Your task to perform on an android device: empty trash in the gmail app Image 0: 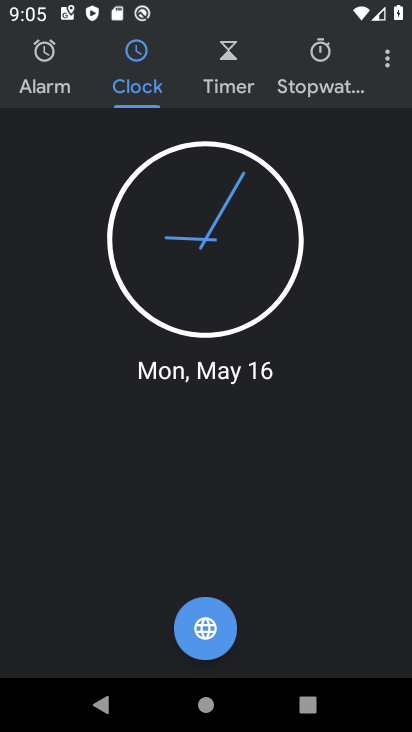
Step 0: press home button
Your task to perform on an android device: empty trash in the gmail app Image 1: 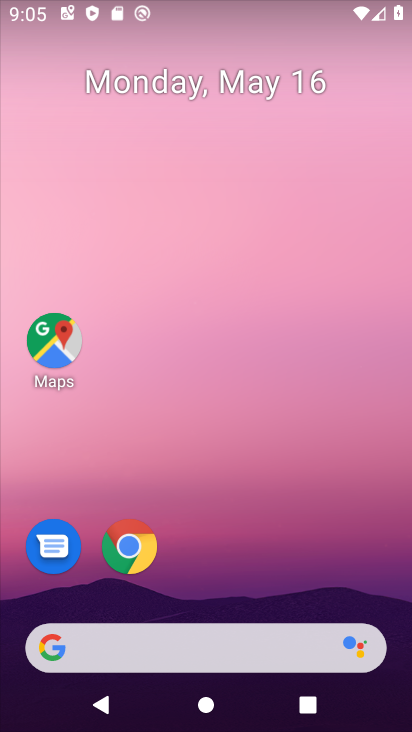
Step 1: drag from (249, 673) to (212, 130)
Your task to perform on an android device: empty trash in the gmail app Image 2: 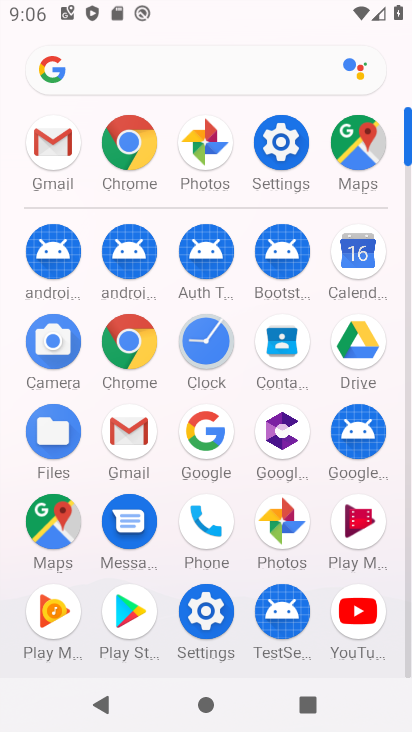
Step 2: click (64, 158)
Your task to perform on an android device: empty trash in the gmail app Image 3: 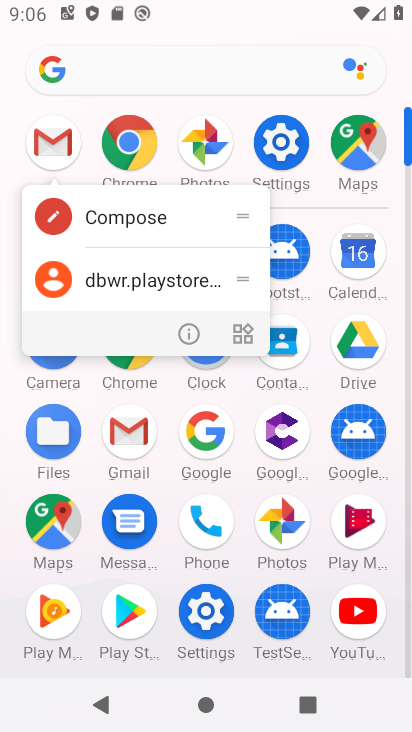
Step 3: click (39, 154)
Your task to perform on an android device: empty trash in the gmail app Image 4: 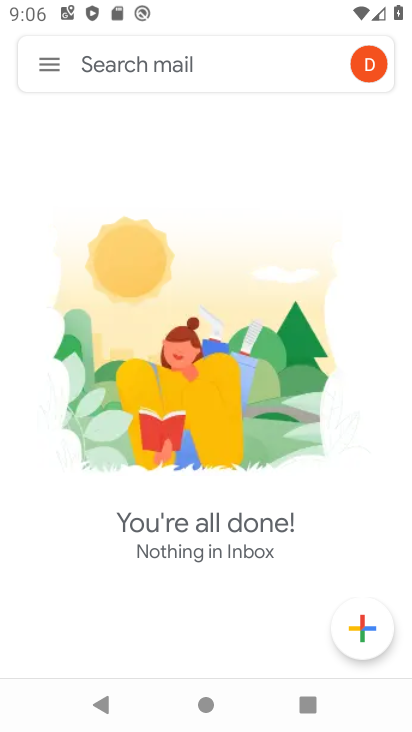
Step 4: click (41, 61)
Your task to perform on an android device: empty trash in the gmail app Image 5: 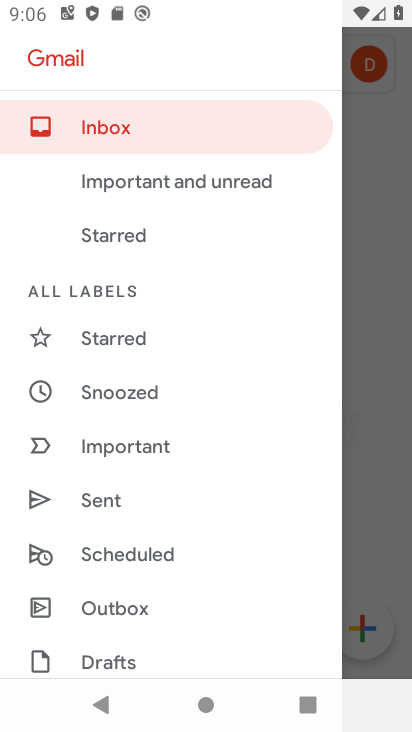
Step 5: drag from (85, 605) to (195, 385)
Your task to perform on an android device: empty trash in the gmail app Image 6: 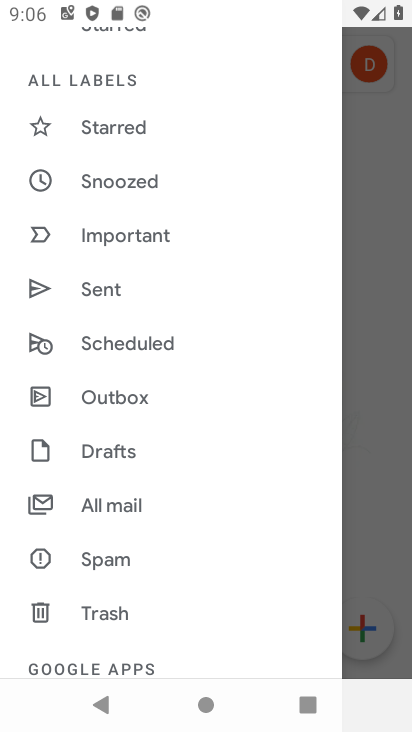
Step 6: click (92, 612)
Your task to perform on an android device: empty trash in the gmail app Image 7: 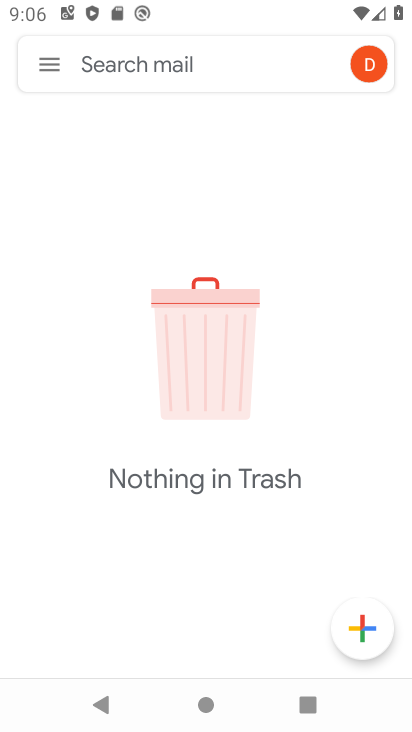
Step 7: task complete